Your task to perform on an android device: turn off airplane mode Image 0: 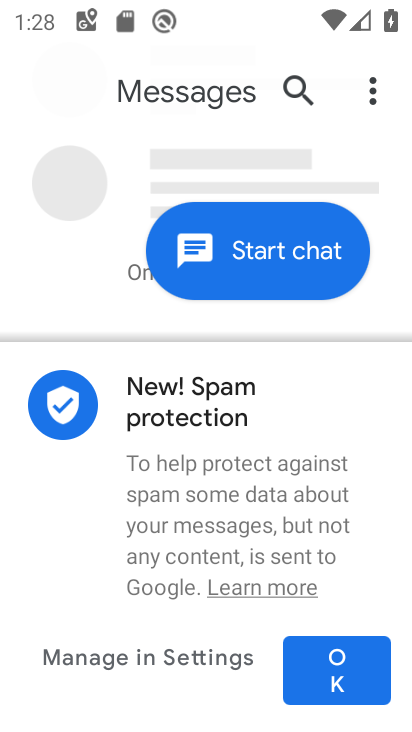
Step 0: press home button
Your task to perform on an android device: turn off airplane mode Image 1: 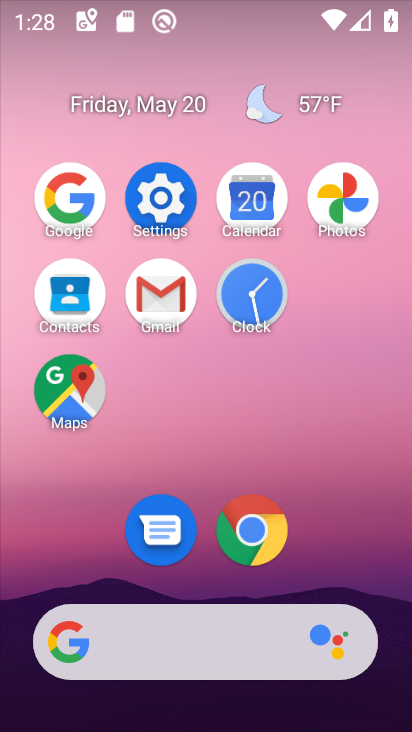
Step 1: click (183, 211)
Your task to perform on an android device: turn off airplane mode Image 2: 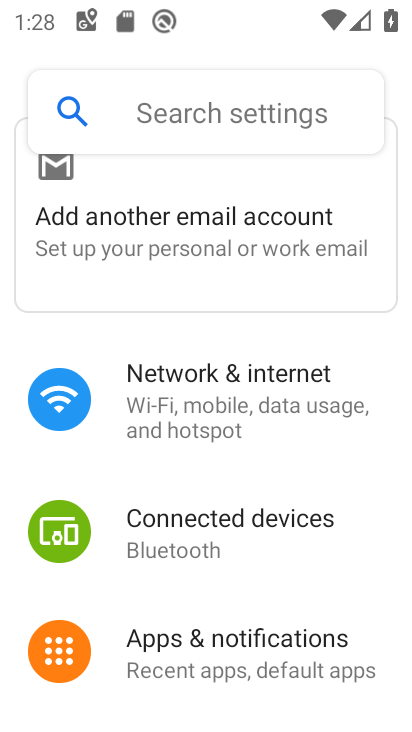
Step 2: click (186, 389)
Your task to perform on an android device: turn off airplane mode Image 3: 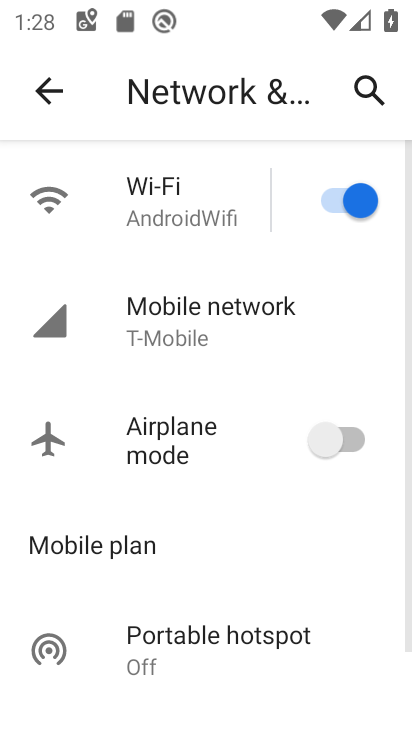
Step 3: task complete